Your task to perform on an android device: Empty the shopping cart on bestbuy. Image 0: 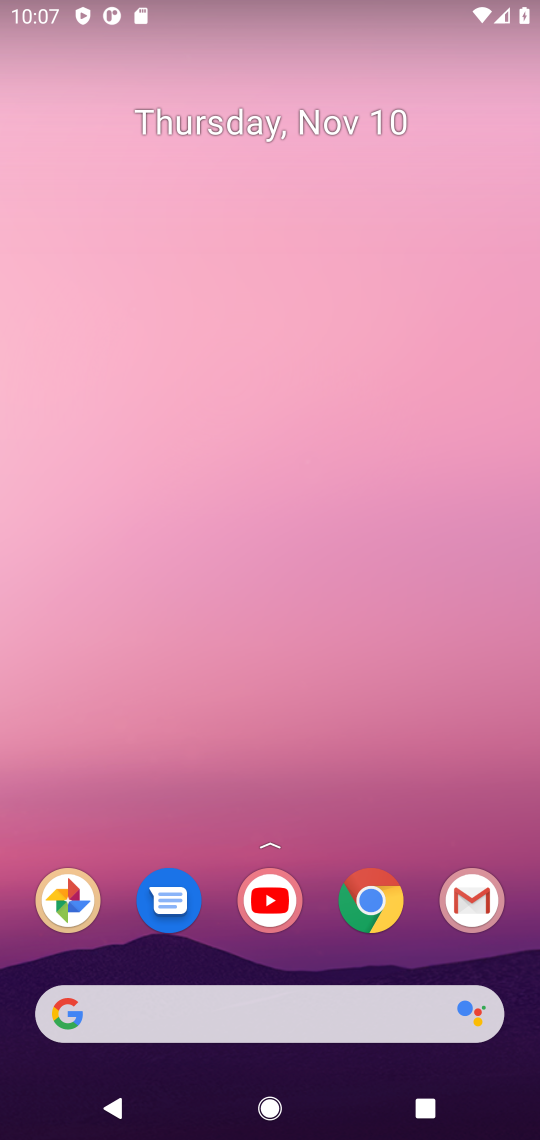
Step 0: click (380, 904)
Your task to perform on an android device: Empty the shopping cart on bestbuy. Image 1: 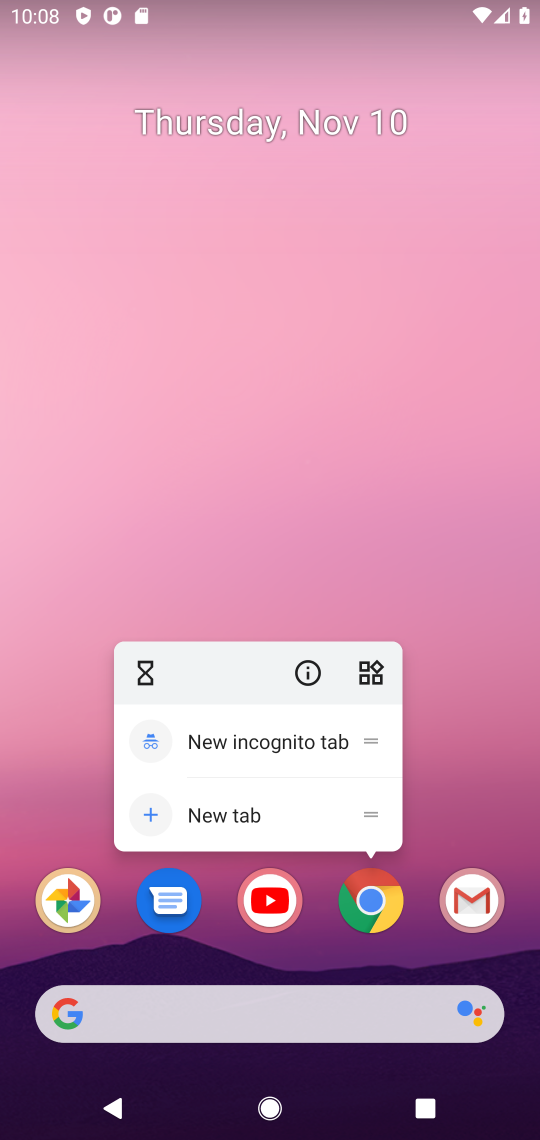
Step 1: click (387, 887)
Your task to perform on an android device: Empty the shopping cart on bestbuy. Image 2: 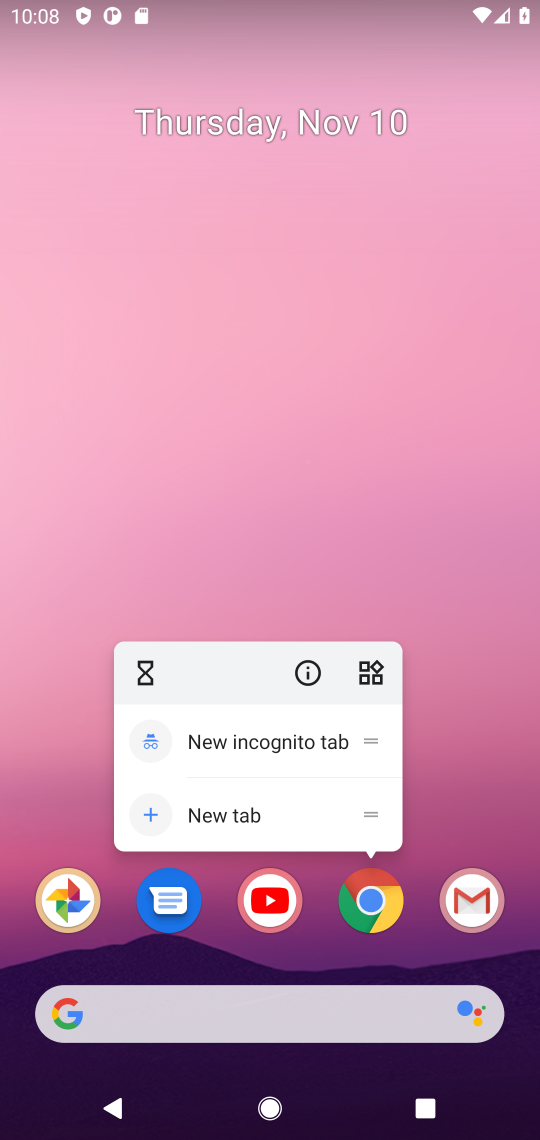
Step 2: click (387, 888)
Your task to perform on an android device: Empty the shopping cart on bestbuy. Image 3: 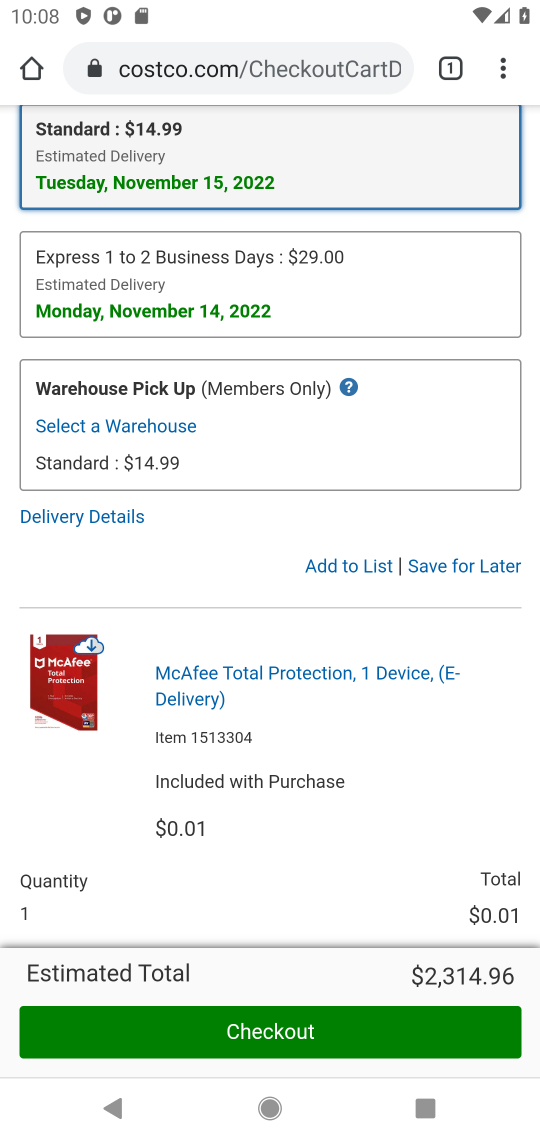
Step 3: click (376, 61)
Your task to perform on an android device: Empty the shopping cart on bestbuy. Image 4: 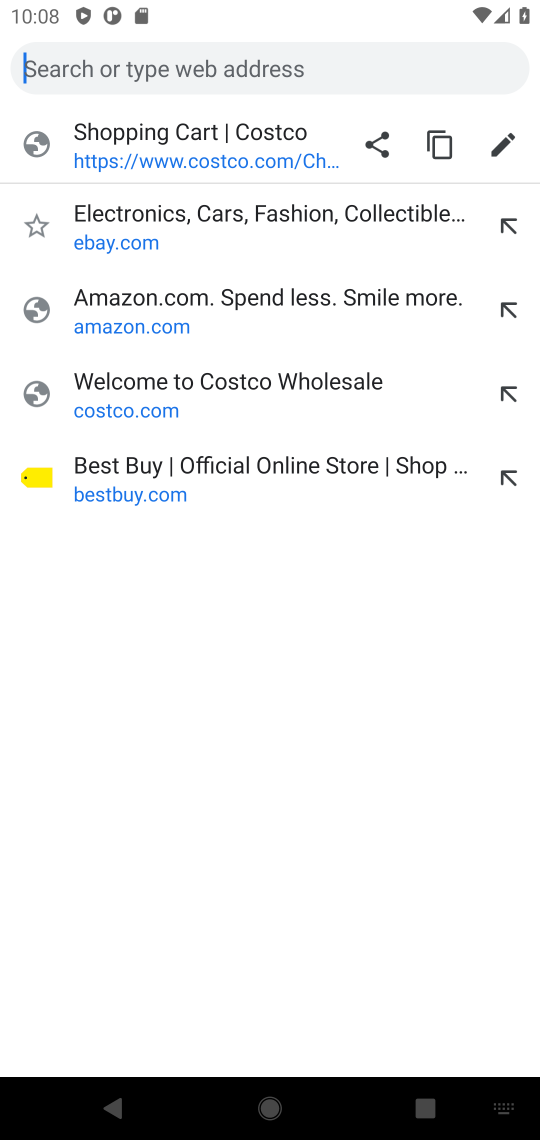
Step 4: type "bestbuy"
Your task to perform on an android device: Empty the shopping cart on bestbuy. Image 5: 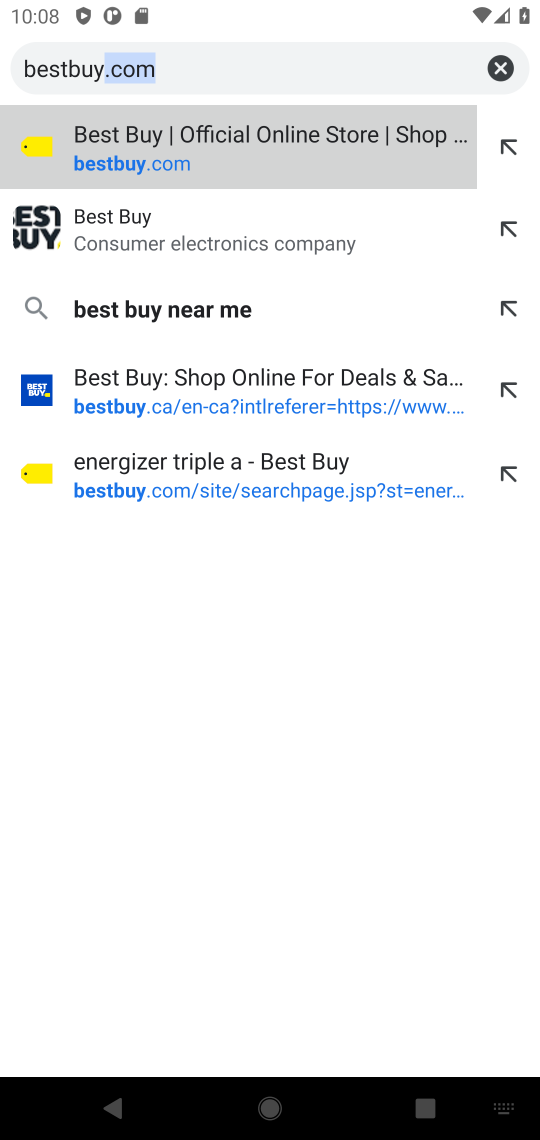
Step 5: press enter
Your task to perform on an android device: Empty the shopping cart on bestbuy. Image 6: 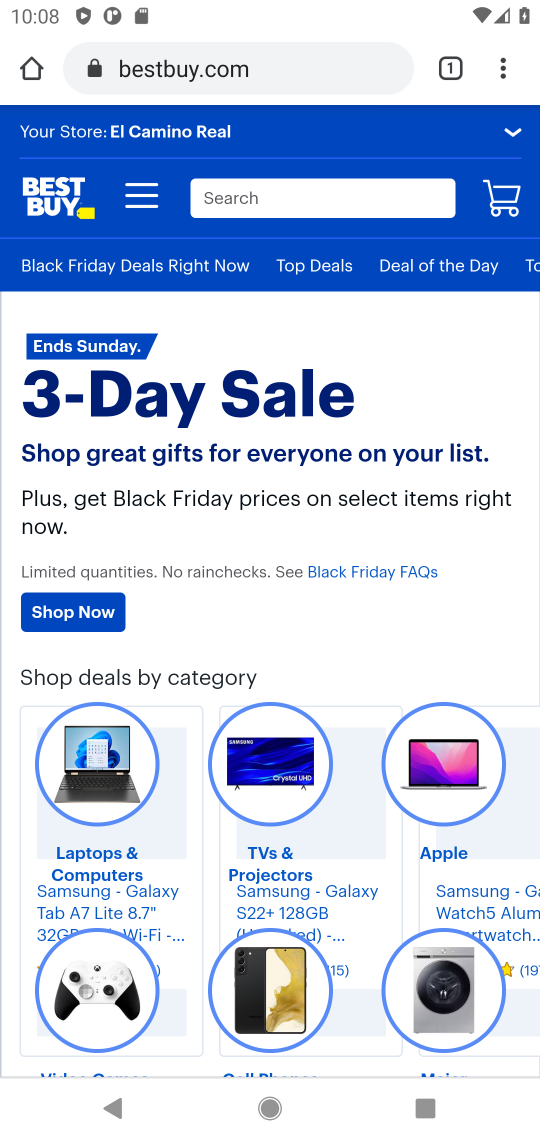
Step 6: click (497, 193)
Your task to perform on an android device: Empty the shopping cart on bestbuy. Image 7: 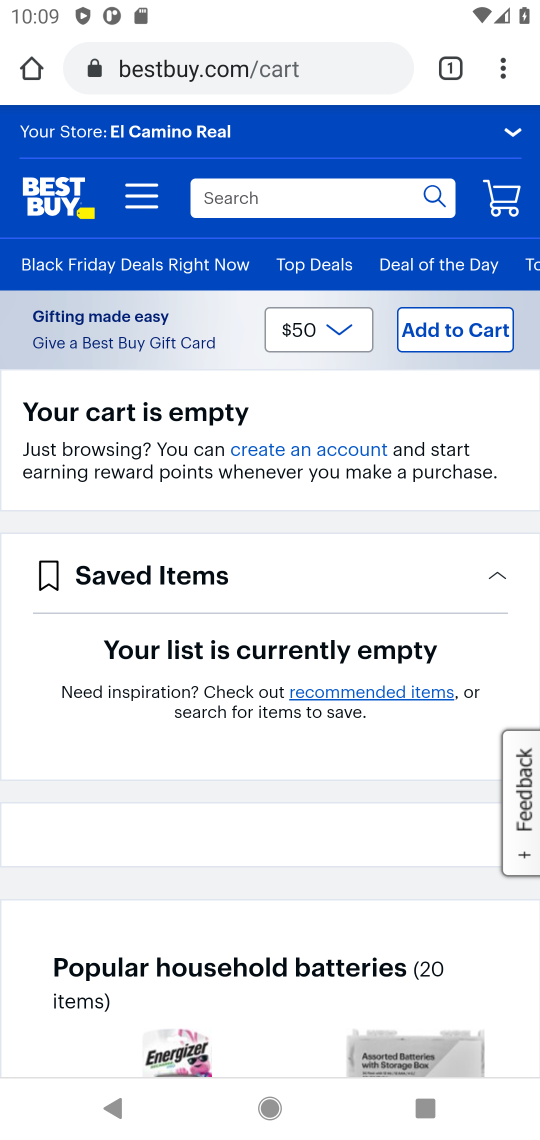
Step 7: task complete